Your task to perform on an android device: Go to calendar. Show me events next week Image 0: 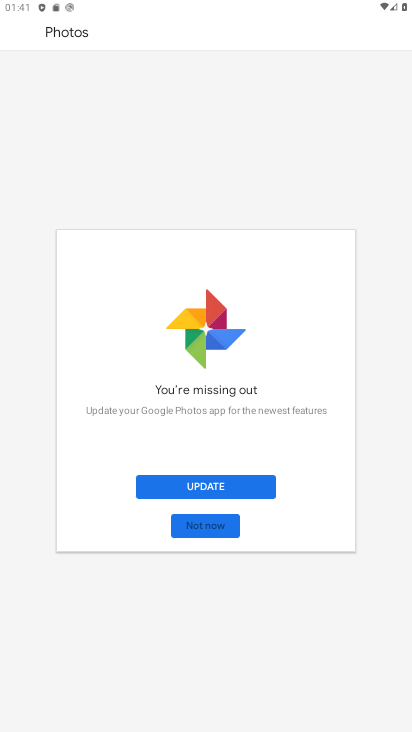
Step 0: press home button
Your task to perform on an android device: Go to calendar. Show me events next week Image 1: 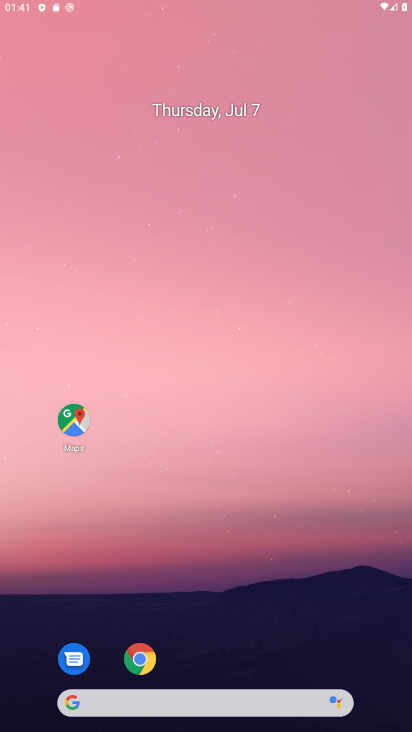
Step 1: drag from (238, 627) to (243, 140)
Your task to perform on an android device: Go to calendar. Show me events next week Image 2: 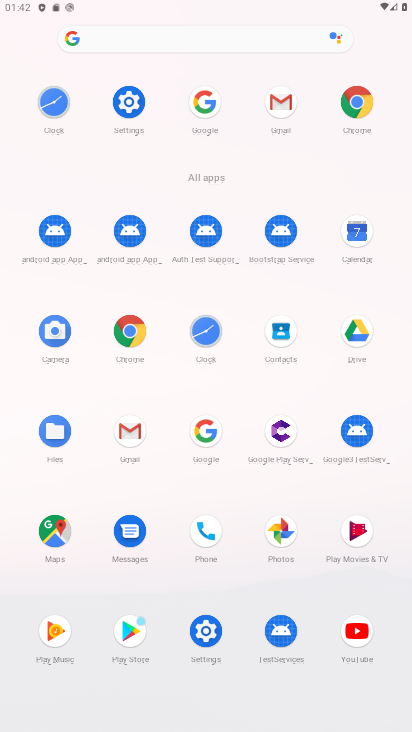
Step 2: click (358, 223)
Your task to perform on an android device: Go to calendar. Show me events next week Image 3: 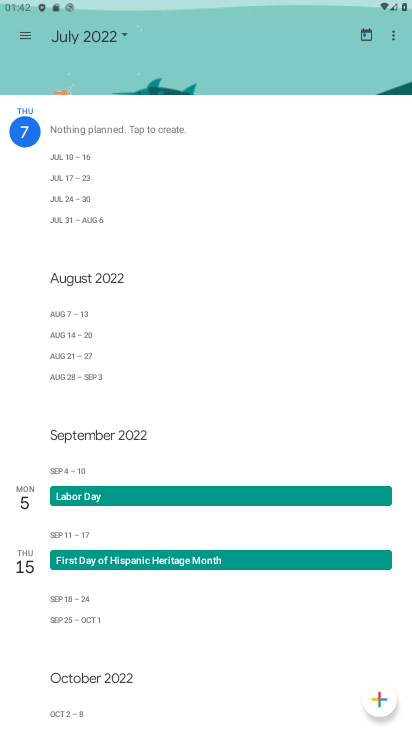
Step 3: click (116, 37)
Your task to perform on an android device: Go to calendar. Show me events next week Image 4: 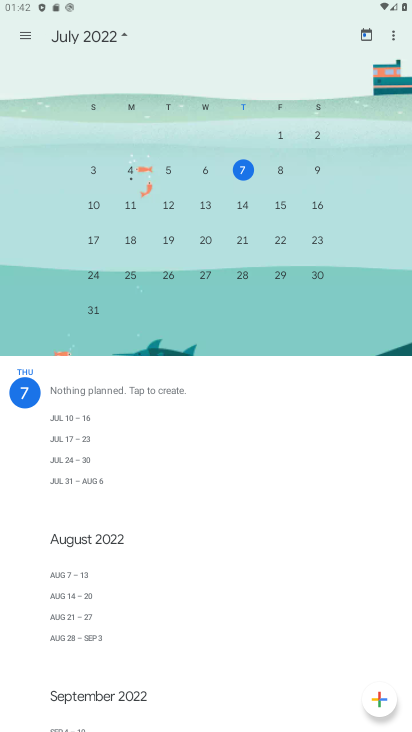
Step 4: click (247, 203)
Your task to perform on an android device: Go to calendar. Show me events next week Image 5: 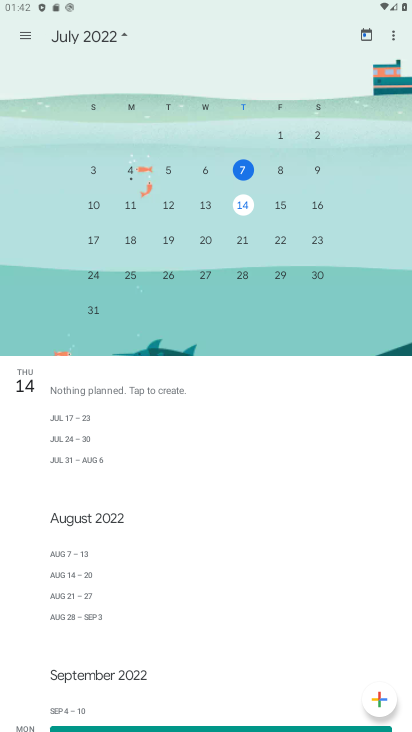
Step 5: click (247, 203)
Your task to perform on an android device: Go to calendar. Show me events next week Image 6: 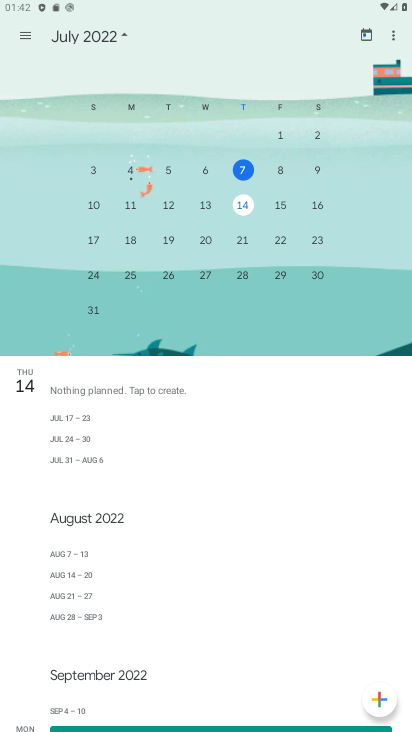
Step 6: task complete